Your task to perform on an android device: Go to notification settings Image 0: 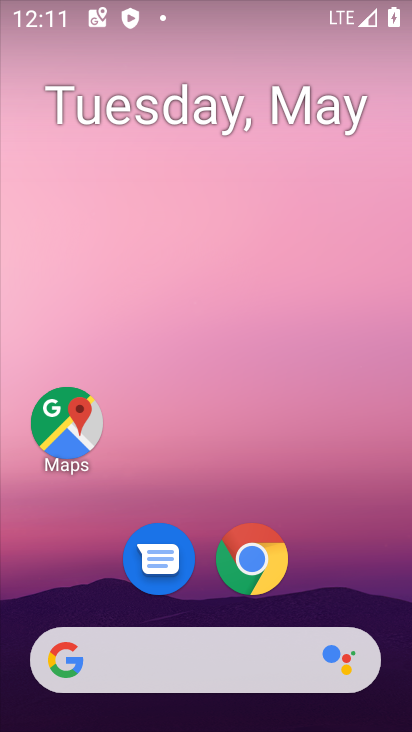
Step 0: drag from (342, 546) to (260, 99)
Your task to perform on an android device: Go to notification settings Image 1: 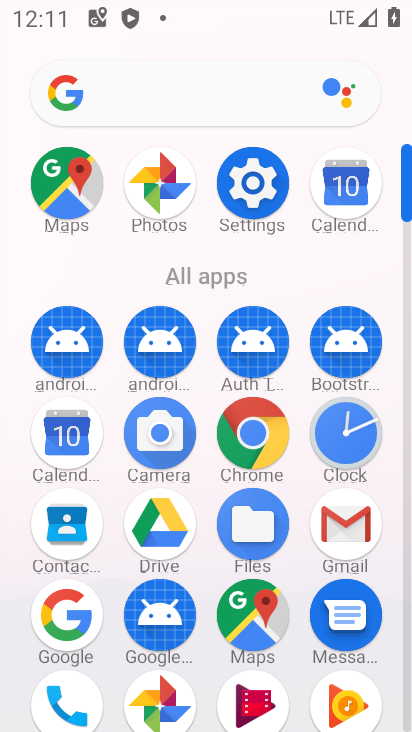
Step 1: click (257, 183)
Your task to perform on an android device: Go to notification settings Image 2: 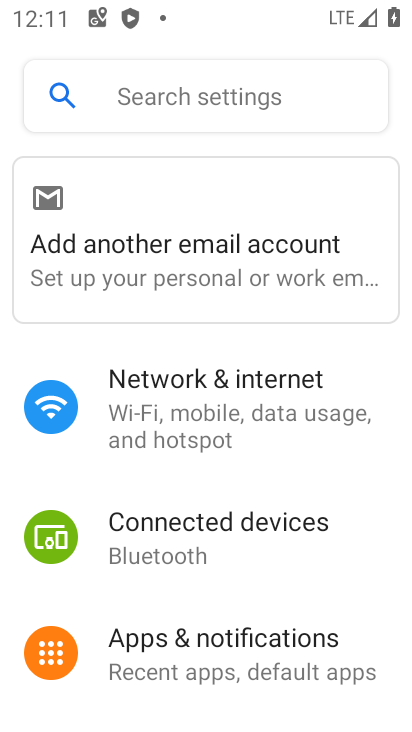
Step 2: drag from (257, 626) to (272, 321)
Your task to perform on an android device: Go to notification settings Image 3: 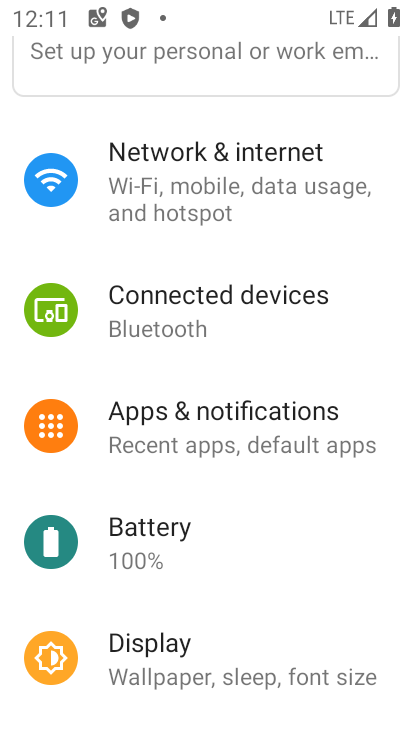
Step 3: click (230, 415)
Your task to perform on an android device: Go to notification settings Image 4: 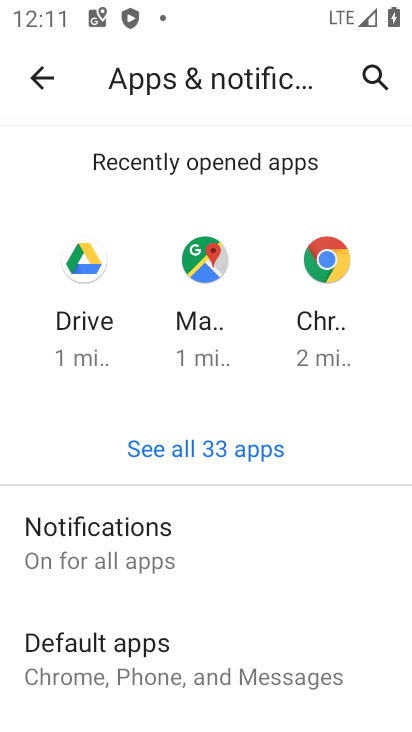
Step 4: task complete